Your task to perform on an android device: Is it going to rain this weekend? Image 0: 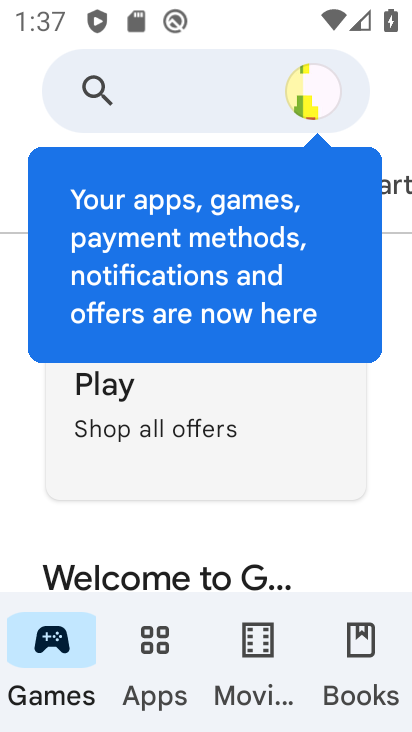
Step 0: press home button
Your task to perform on an android device: Is it going to rain this weekend? Image 1: 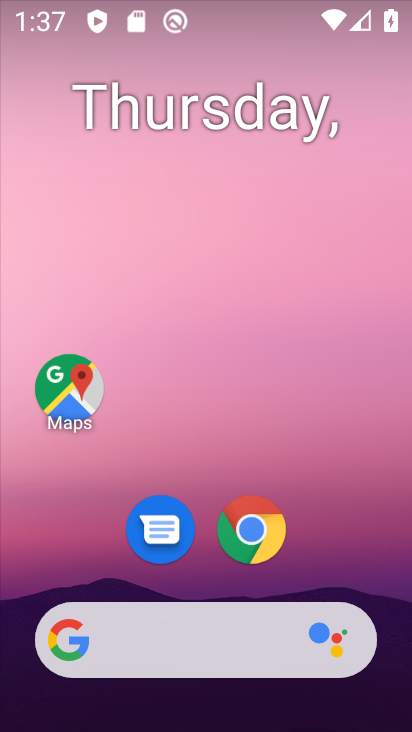
Step 1: drag from (5, 488) to (402, 421)
Your task to perform on an android device: Is it going to rain this weekend? Image 2: 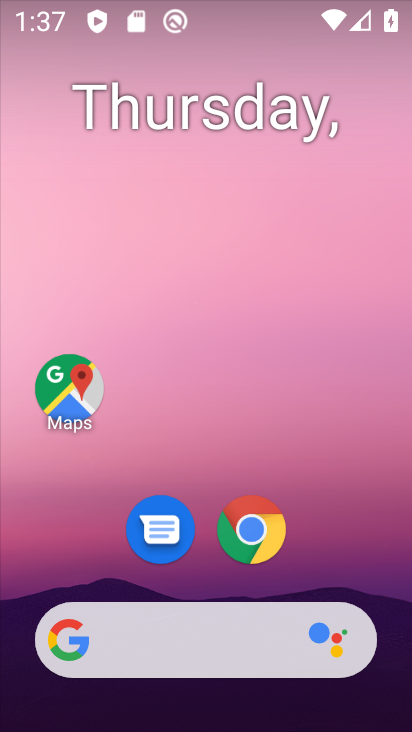
Step 2: drag from (3, 482) to (357, 361)
Your task to perform on an android device: Is it going to rain this weekend? Image 3: 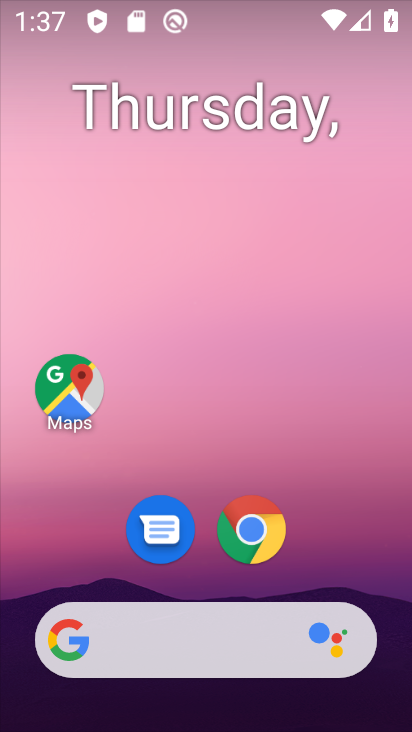
Step 3: drag from (5, 499) to (405, 334)
Your task to perform on an android device: Is it going to rain this weekend? Image 4: 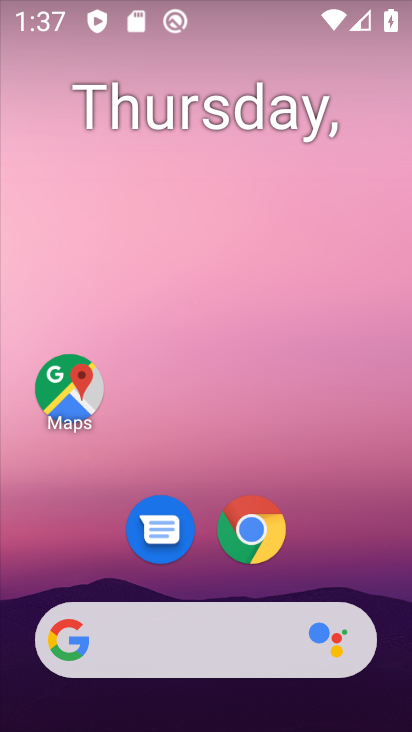
Step 4: drag from (1, 287) to (385, 297)
Your task to perform on an android device: Is it going to rain this weekend? Image 5: 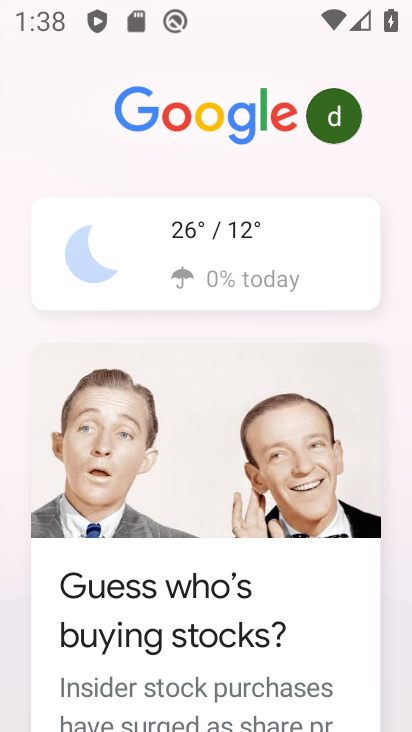
Step 5: click (216, 296)
Your task to perform on an android device: Is it going to rain this weekend? Image 6: 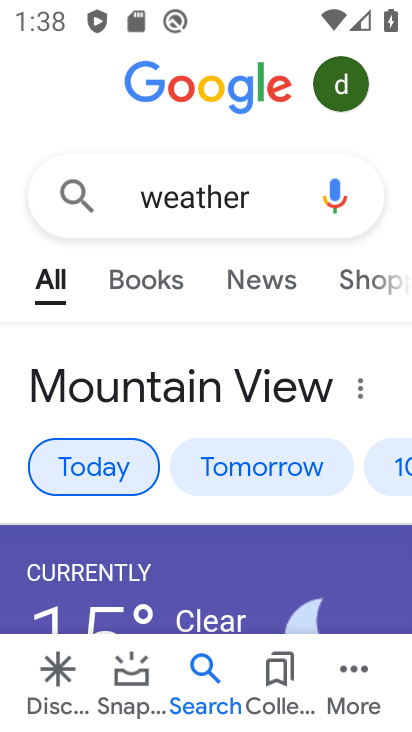
Step 6: click (400, 480)
Your task to perform on an android device: Is it going to rain this weekend? Image 7: 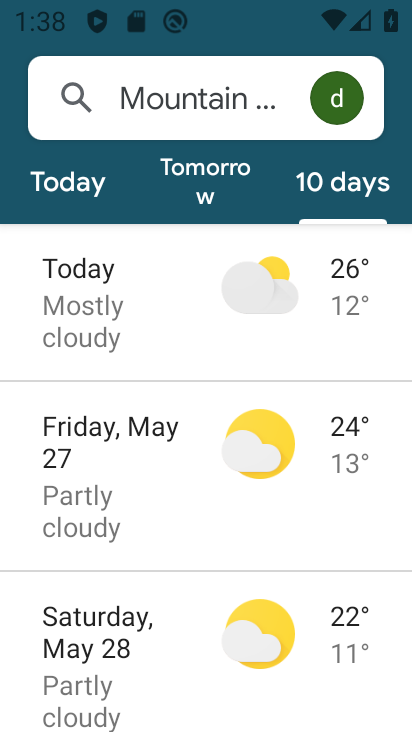
Step 7: task complete